Your task to perform on an android device: change text size in settings app Image 0: 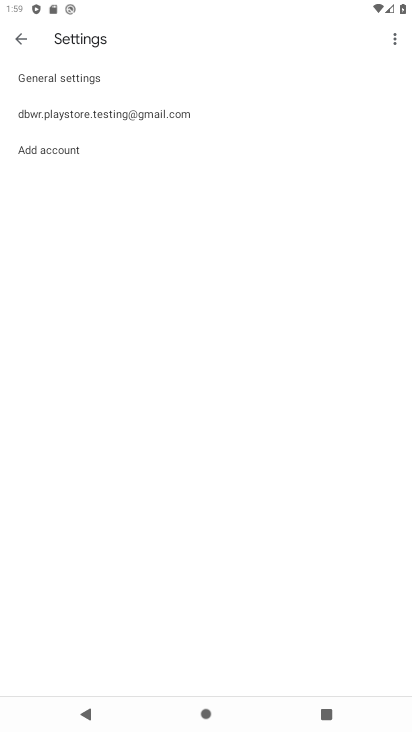
Step 0: press back button
Your task to perform on an android device: change text size in settings app Image 1: 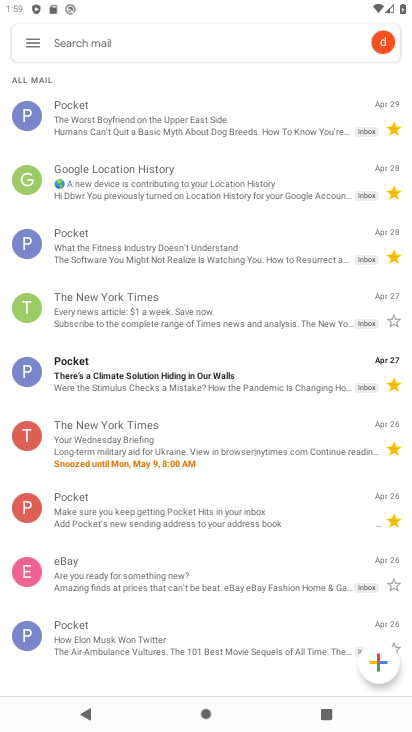
Step 1: press back button
Your task to perform on an android device: change text size in settings app Image 2: 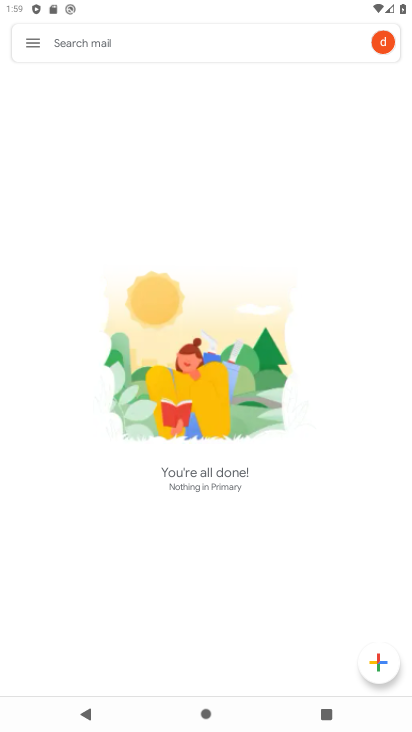
Step 2: press back button
Your task to perform on an android device: change text size in settings app Image 3: 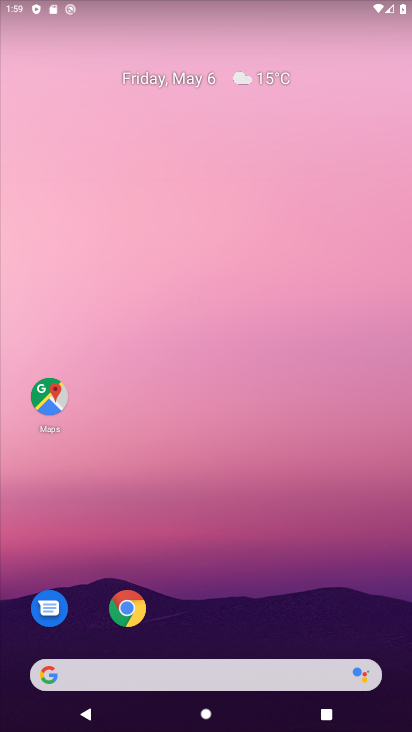
Step 3: drag from (239, 570) to (222, 36)
Your task to perform on an android device: change text size in settings app Image 4: 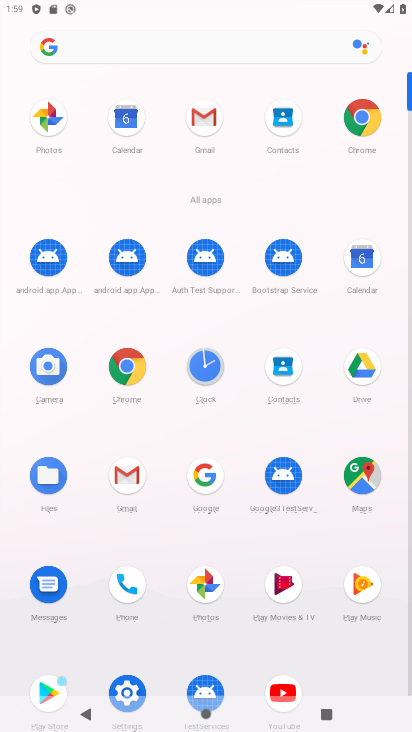
Step 4: drag from (161, 621) to (174, 481)
Your task to perform on an android device: change text size in settings app Image 5: 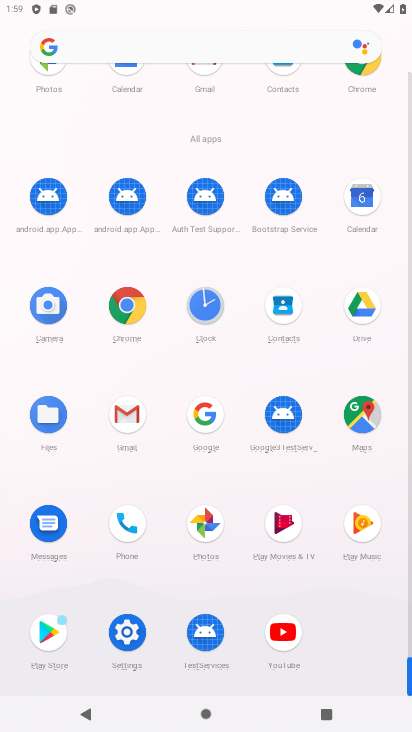
Step 5: click (123, 630)
Your task to perform on an android device: change text size in settings app Image 6: 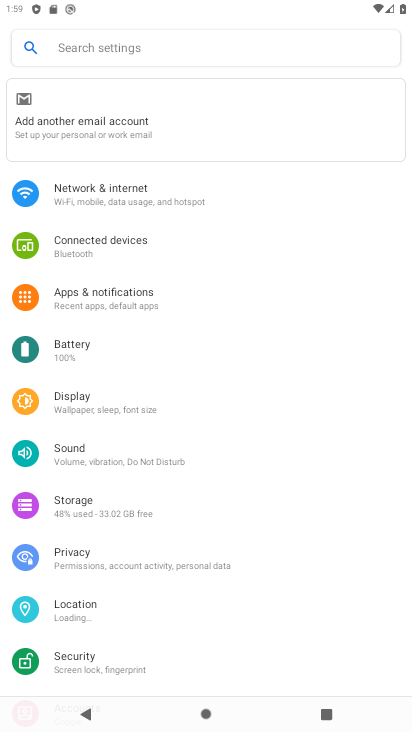
Step 6: drag from (158, 483) to (212, 398)
Your task to perform on an android device: change text size in settings app Image 7: 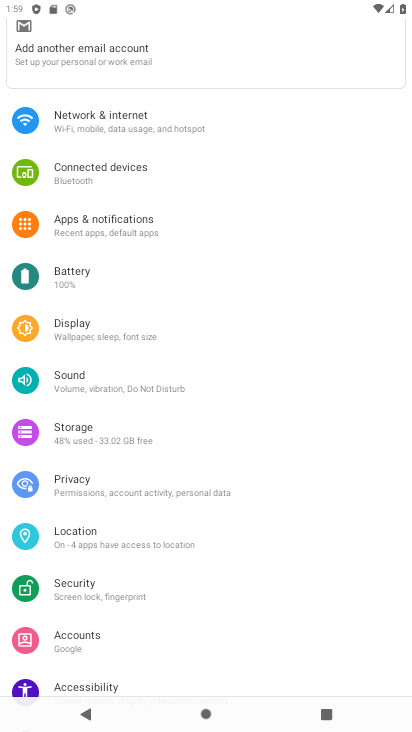
Step 7: drag from (119, 557) to (176, 459)
Your task to perform on an android device: change text size in settings app Image 8: 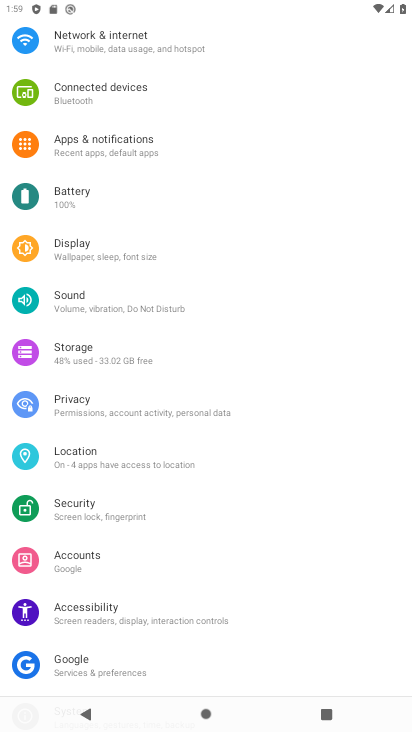
Step 8: click (105, 602)
Your task to perform on an android device: change text size in settings app Image 9: 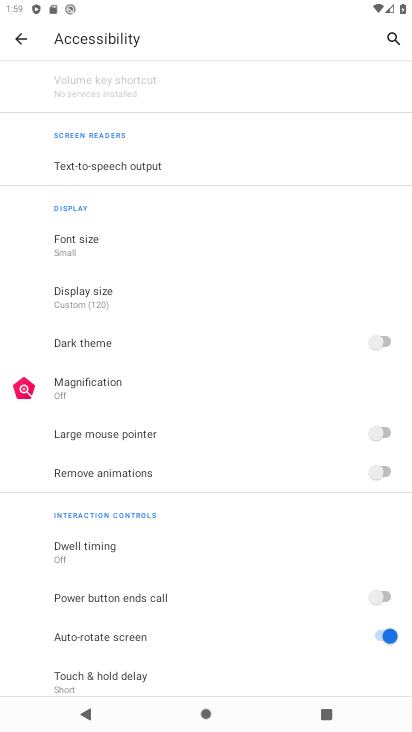
Step 9: click (81, 244)
Your task to perform on an android device: change text size in settings app Image 10: 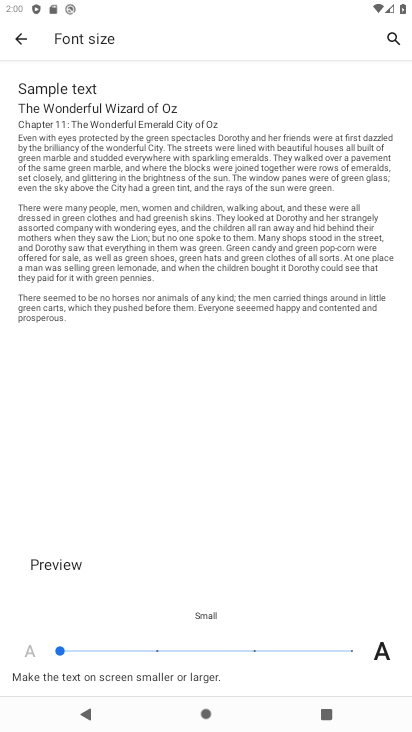
Step 10: click (162, 647)
Your task to perform on an android device: change text size in settings app Image 11: 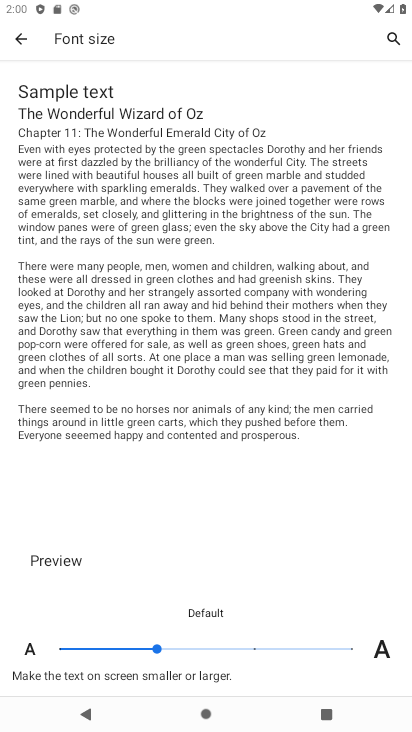
Step 11: task complete